Your task to perform on an android device: clear history in the chrome app Image 0: 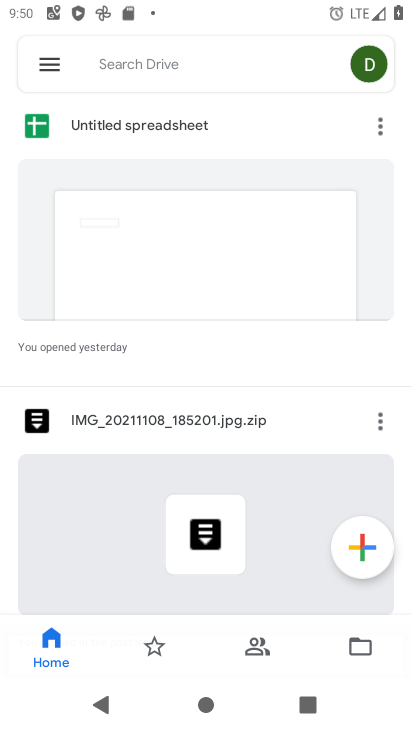
Step 0: press home button
Your task to perform on an android device: clear history in the chrome app Image 1: 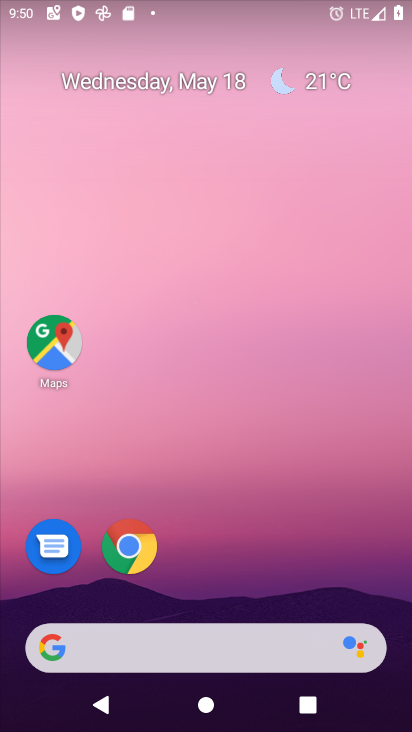
Step 1: drag from (393, 644) to (317, 35)
Your task to perform on an android device: clear history in the chrome app Image 2: 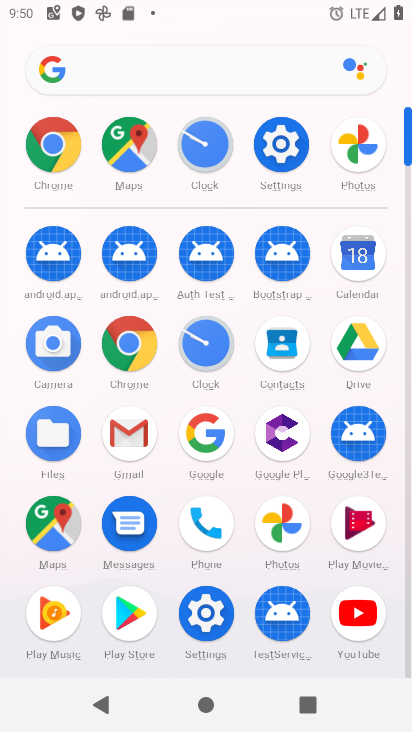
Step 2: click (143, 358)
Your task to perform on an android device: clear history in the chrome app Image 3: 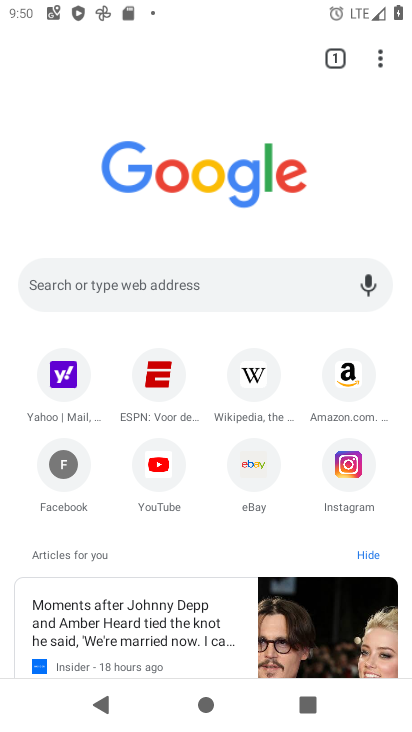
Step 3: click (382, 55)
Your task to perform on an android device: clear history in the chrome app Image 4: 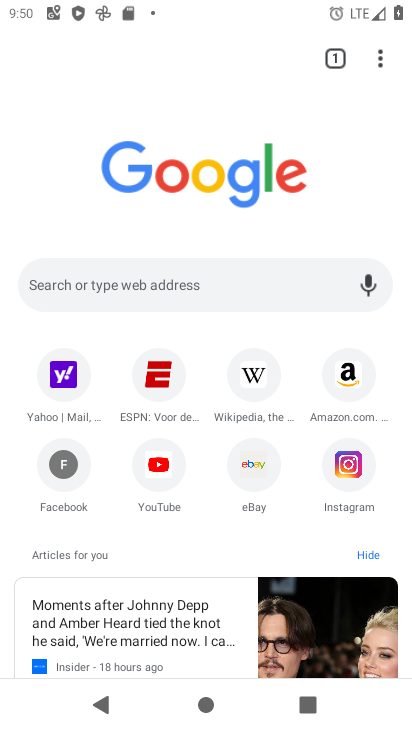
Step 4: click (374, 51)
Your task to perform on an android device: clear history in the chrome app Image 5: 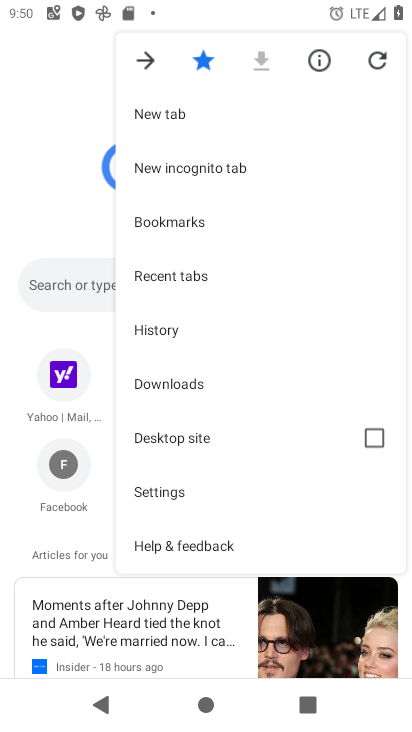
Step 5: click (191, 328)
Your task to perform on an android device: clear history in the chrome app Image 6: 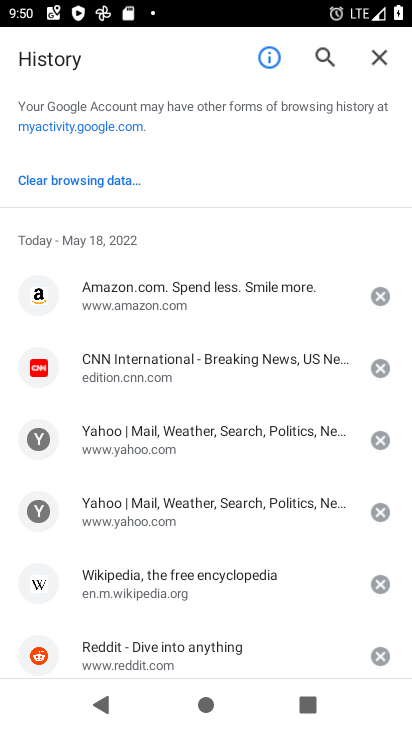
Step 6: click (76, 158)
Your task to perform on an android device: clear history in the chrome app Image 7: 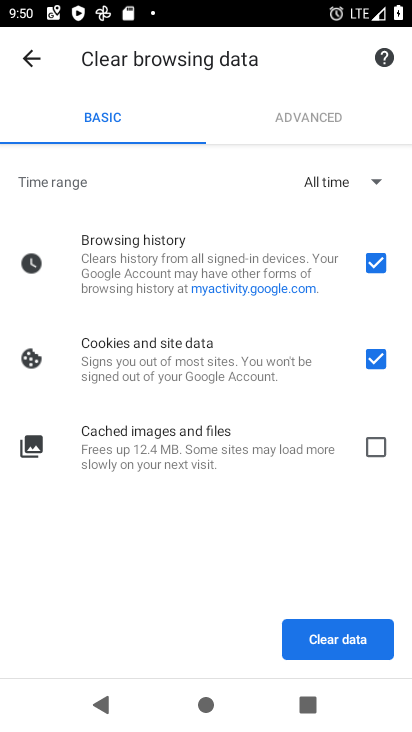
Step 7: click (356, 630)
Your task to perform on an android device: clear history in the chrome app Image 8: 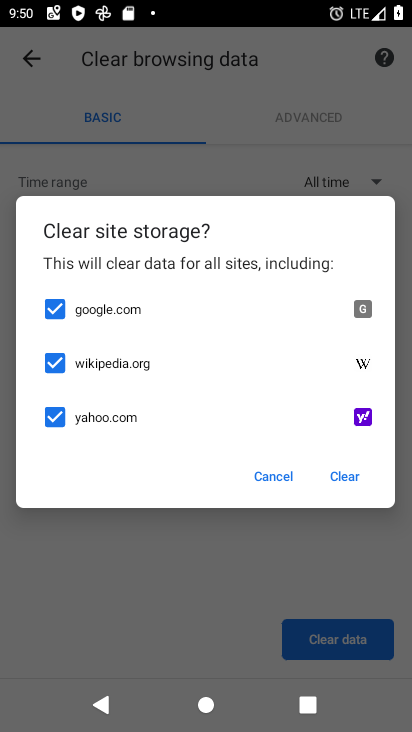
Step 8: click (355, 462)
Your task to perform on an android device: clear history in the chrome app Image 9: 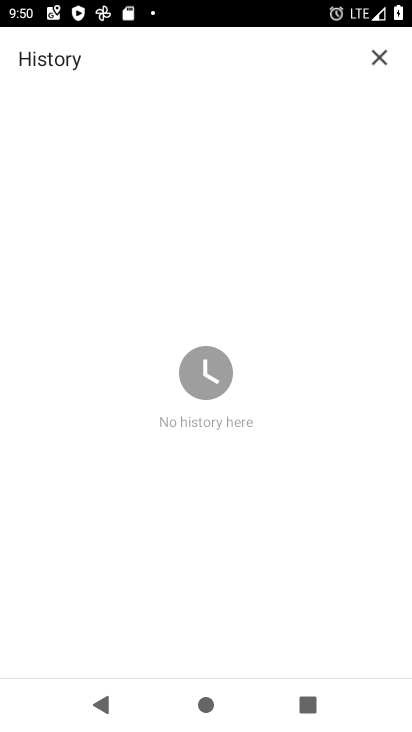
Step 9: task complete